Your task to perform on an android device: check the backup settings in the google photos Image 0: 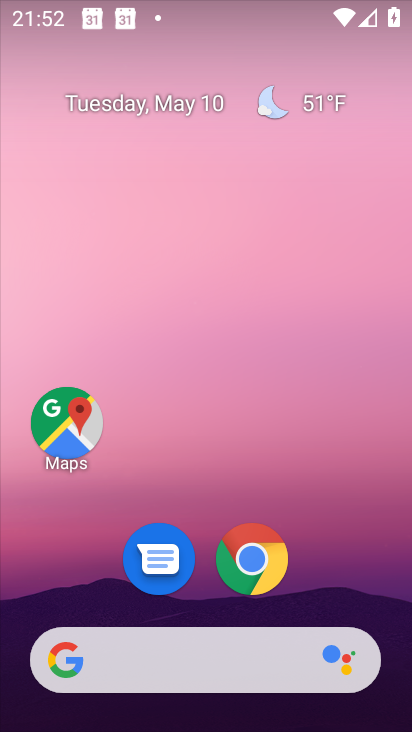
Step 0: drag from (339, 530) to (237, 108)
Your task to perform on an android device: check the backup settings in the google photos Image 1: 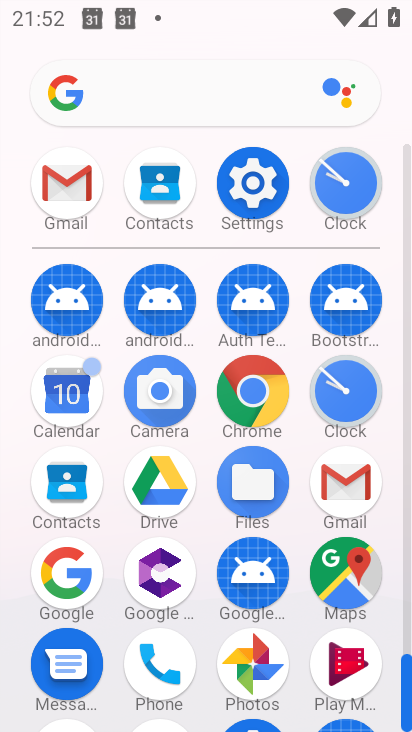
Step 1: drag from (304, 431) to (277, 265)
Your task to perform on an android device: check the backup settings in the google photos Image 2: 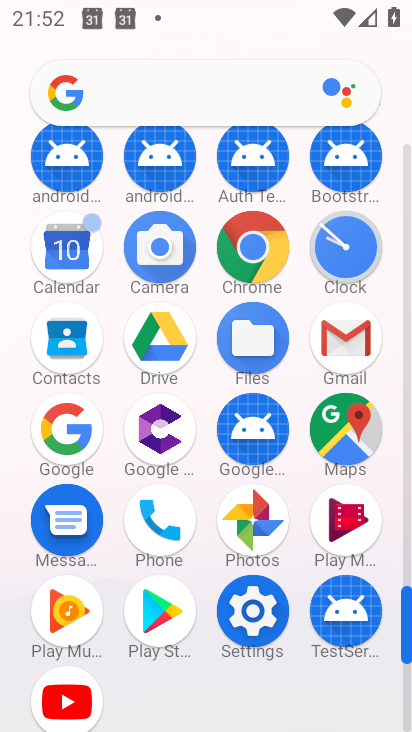
Step 2: click (250, 519)
Your task to perform on an android device: check the backup settings in the google photos Image 3: 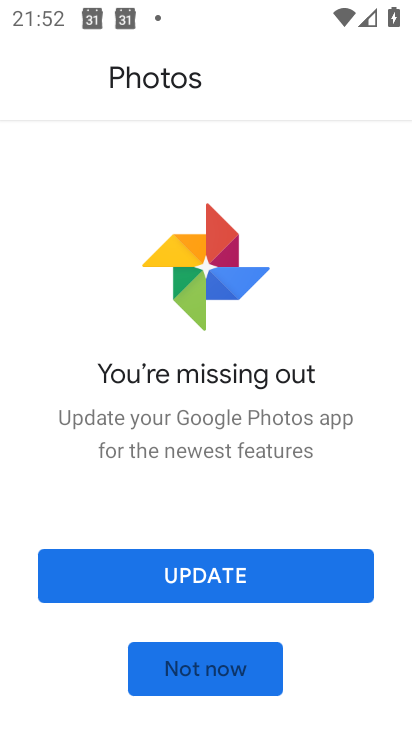
Step 3: click (224, 571)
Your task to perform on an android device: check the backup settings in the google photos Image 4: 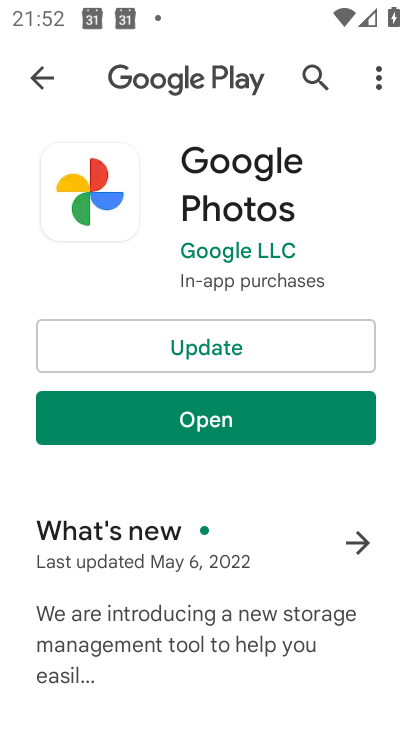
Step 4: click (216, 350)
Your task to perform on an android device: check the backup settings in the google photos Image 5: 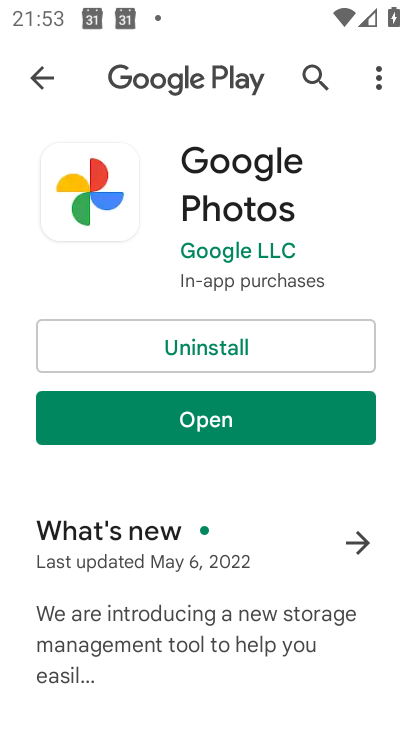
Step 5: click (251, 409)
Your task to perform on an android device: check the backup settings in the google photos Image 6: 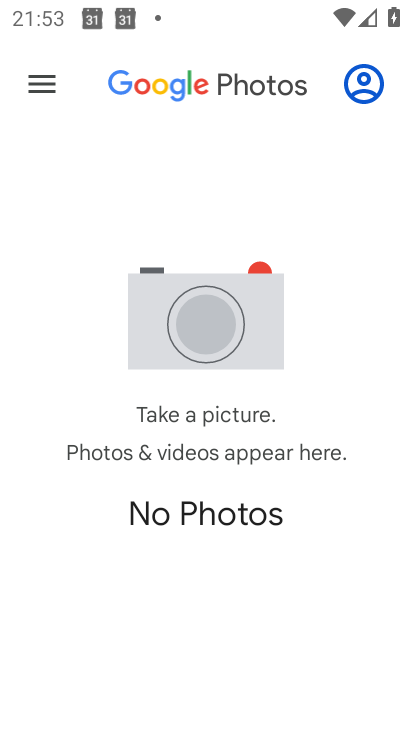
Step 6: click (374, 82)
Your task to perform on an android device: check the backup settings in the google photos Image 7: 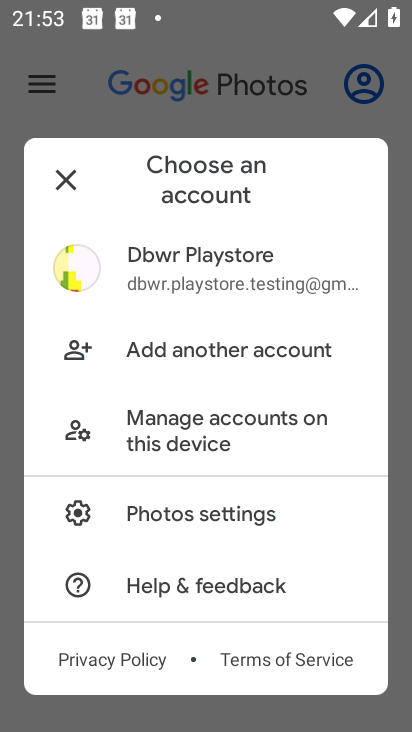
Step 7: click (224, 512)
Your task to perform on an android device: check the backup settings in the google photos Image 8: 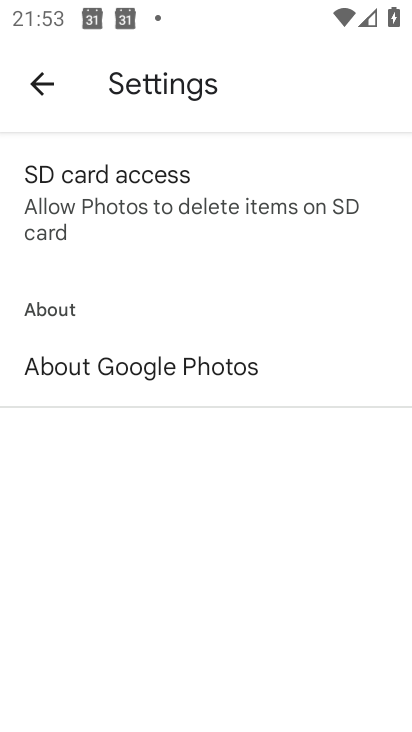
Step 8: press back button
Your task to perform on an android device: check the backup settings in the google photos Image 9: 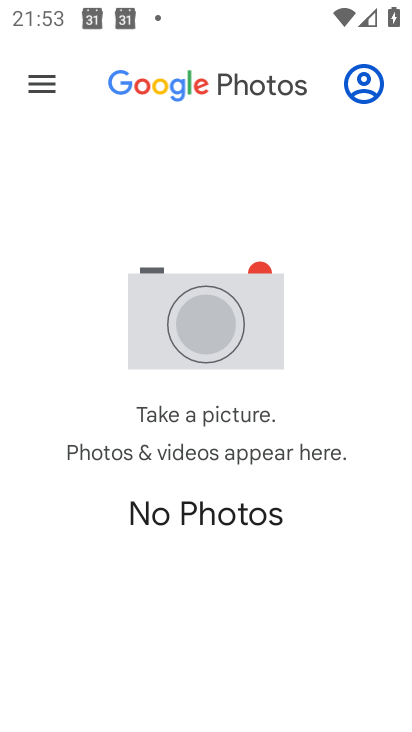
Step 9: click (34, 91)
Your task to perform on an android device: check the backup settings in the google photos Image 10: 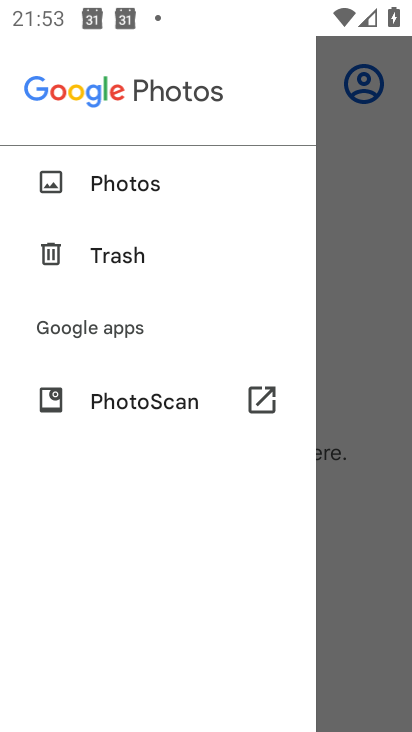
Step 10: click (358, 188)
Your task to perform on an android device: check the backup settings in the google photos Image 11: 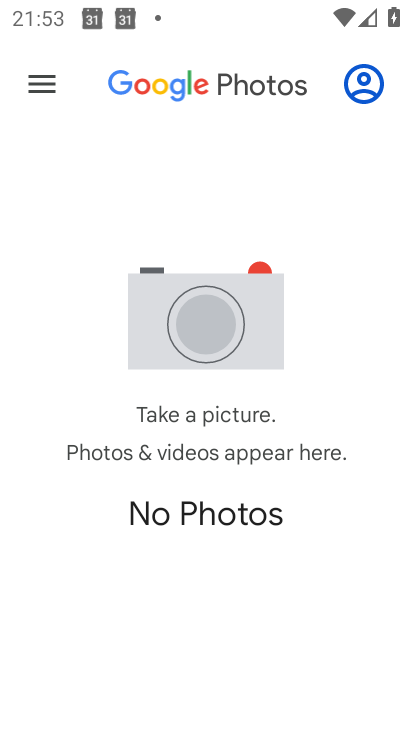
Step 11: click (368, 88)
Your task to perform on an android device: check the backup settings in the google photos Image 12: 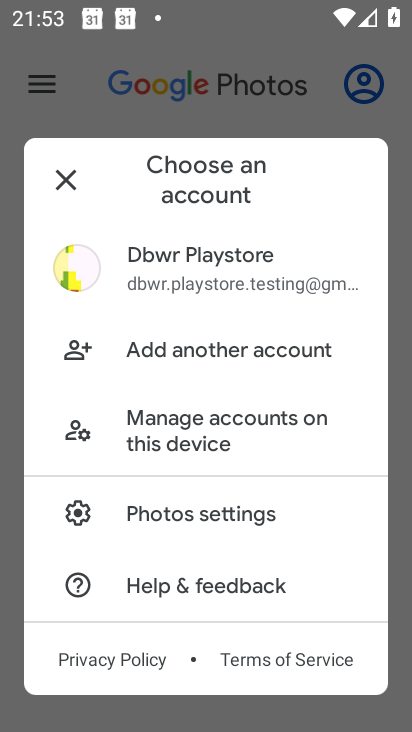
Step 12: click (208, 511)
Your task to perform on an android device: check the backup settings in the google photos Image 13: 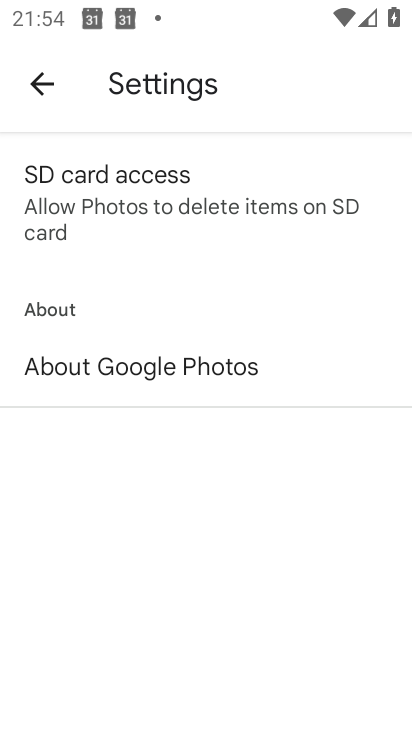
Step 13: task complete